Your task to perform on an android device: toggle priority inbox in the gmail app Image 0: 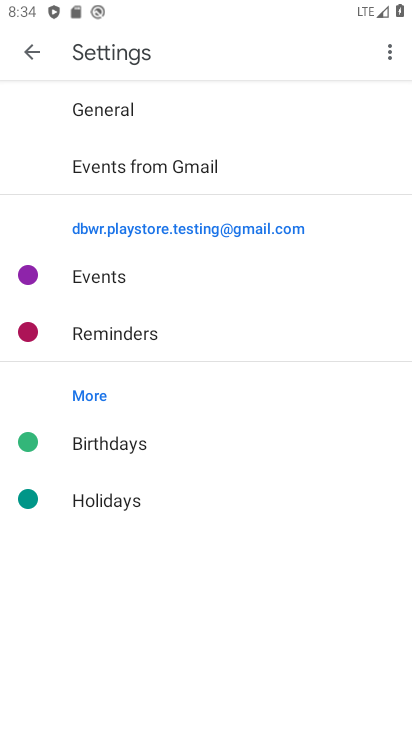
Step 0: press back button
Your task to perform on an android device: toggle priority inbox in the gmail app Image 1: 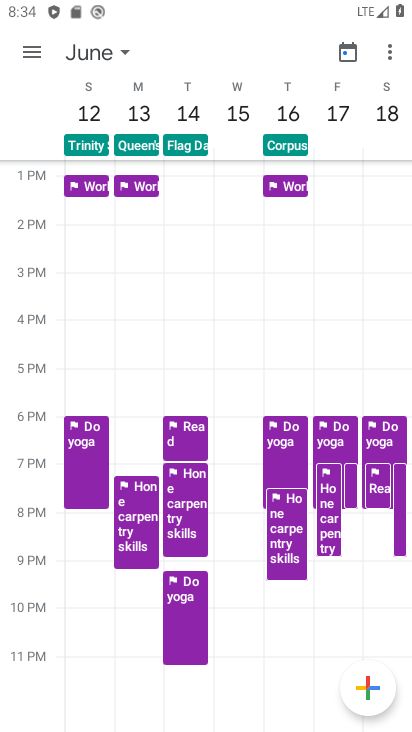
Step 1: press back button
Your task to perform on an android device: toggle priority inbox in the gmail app Image 2: 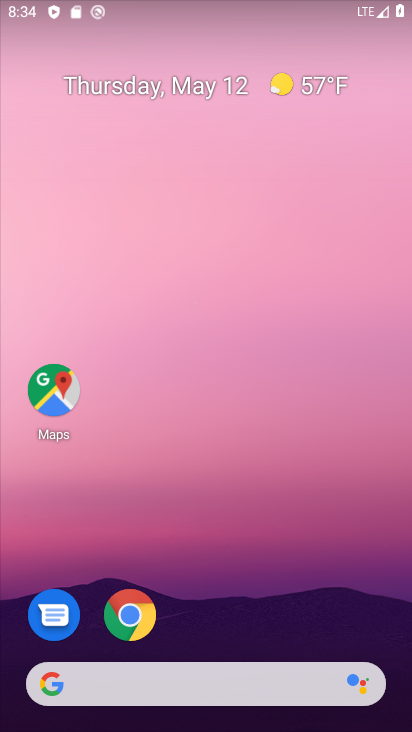
Step 2: drag from (229, 570) to (221, 16)
Your task to perform on an android device: toggle priority inbox in the gmail app Image 3: 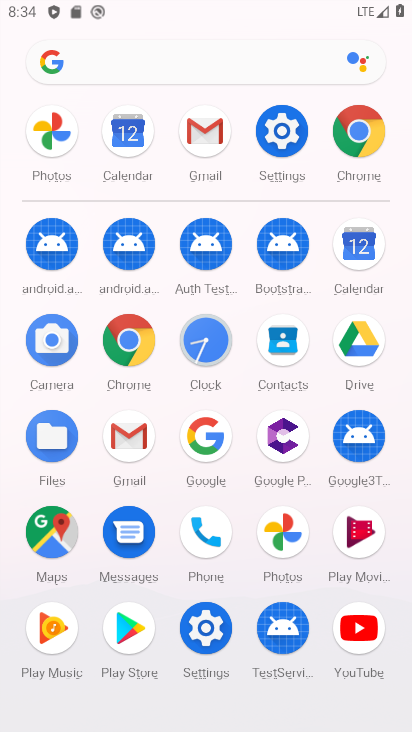
Step 3: click (126, 428)
Your task to perform on an android device: toggle priority inbox in the gmail app Image 4: 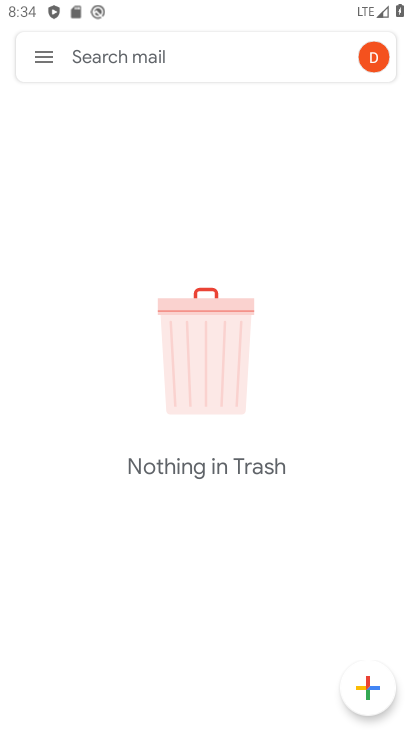
Step 4: click (45, 56)
Your task to perform on an android device: toggle priority inbox in the gmail app Image 5: 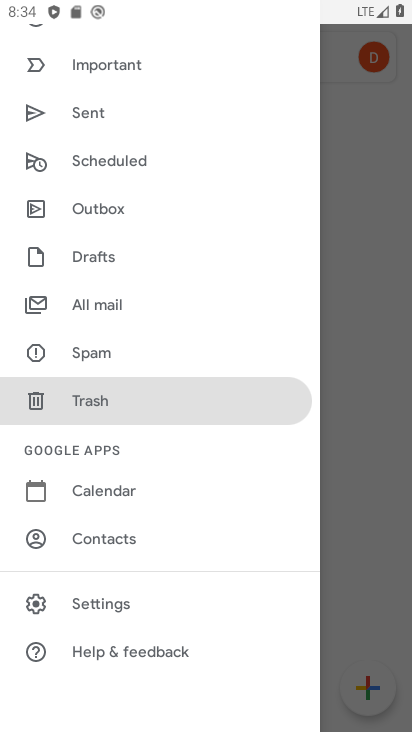
Step 5: click (103, 598)
Your task to perform on an android device: toggle priority inbox in the gmail app Image 6: 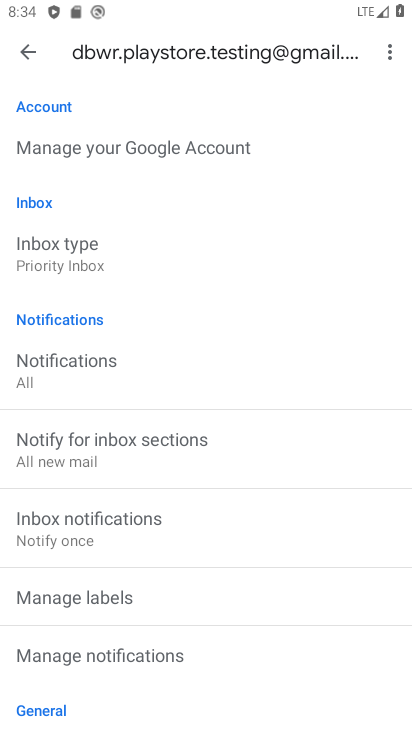
Step 6: click (115, 248)
Your task to perform on an android device: toggle priority inbox in the gmail app Image 7: 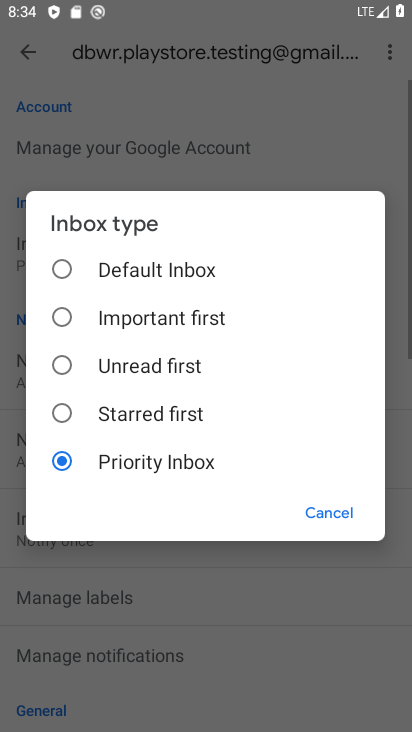
Step 7: click (132, 279)
Your task to perform on an android device: toggle priority inbox in the gmail app Image 8: 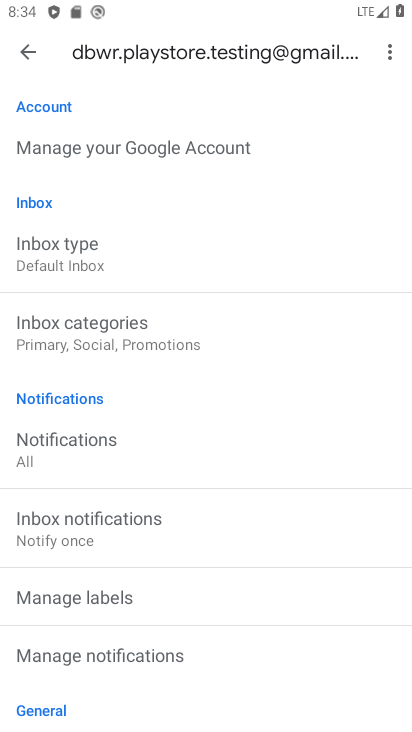
Step 8: task complete